Your task to perform on an android device: Go to wifi settings Image 0: 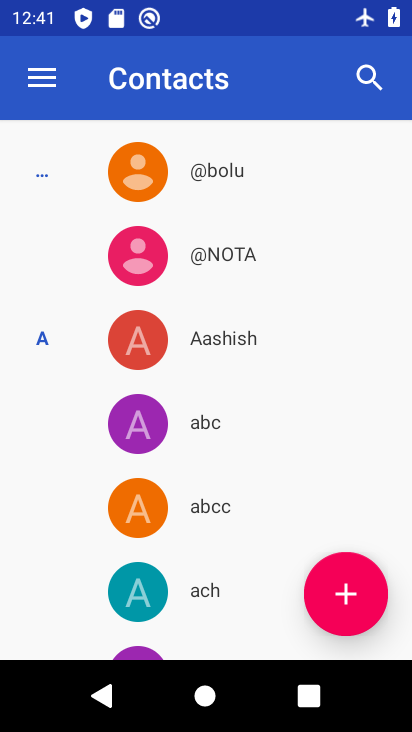
Step 0: press back button
Your task to perform on an android device: Go to wifi settings Image 1: 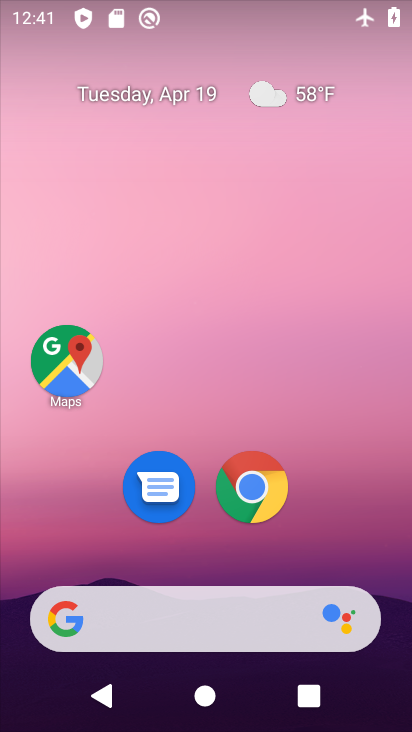
Step 1: drag from (198, 572) to (241, 137)
Your task to perform on an android device: Go to wifi settings Image 2: 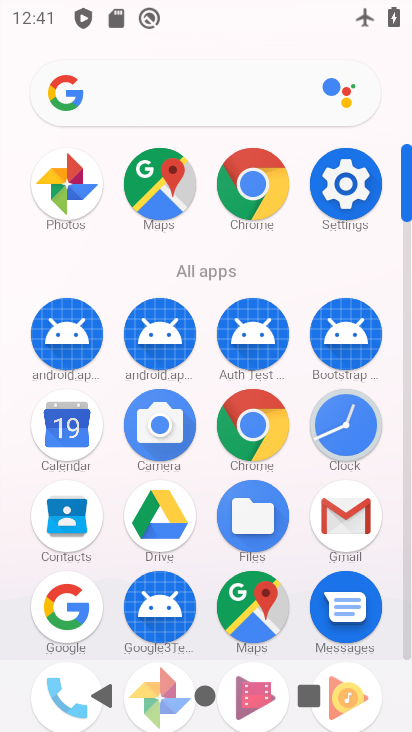
Step 2: click (330, 183)
Your task to perform on an android device: Go to wifi settings Image 3: 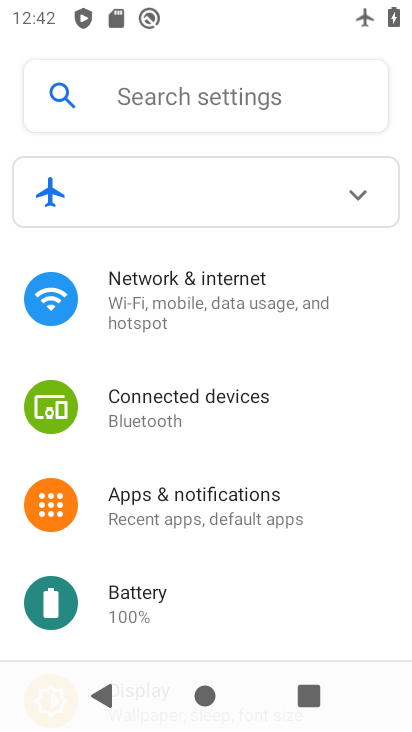
Step 3: click (190, 307)
Your task to perform on an android device: Go to wifi settings Image 4: 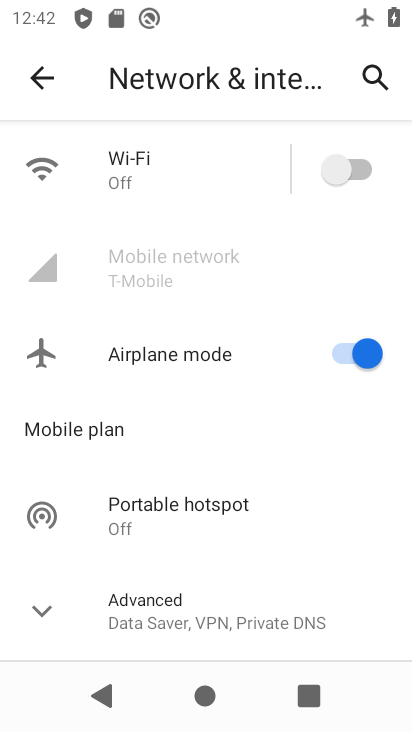
Step 4: click (354, 164)
Your task to perform on an android device: Go to wifi settings Image 5: 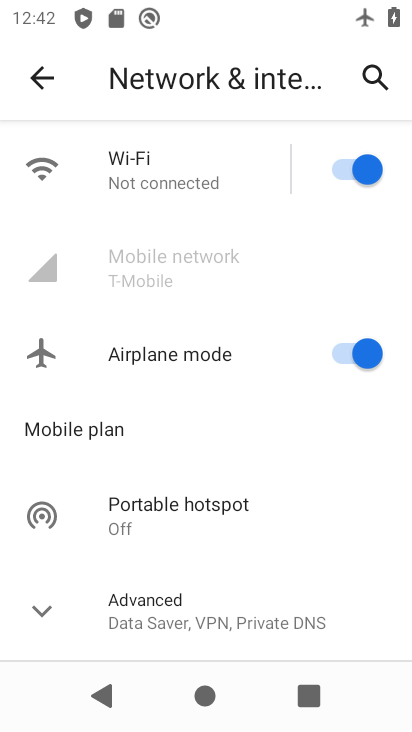
Step 5: click (136, 163)
Your task to perform on an android device: Go to wifi settings Image 6: 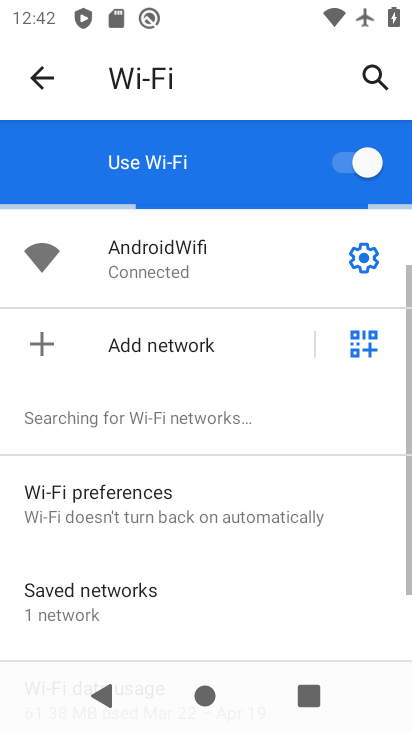
Step 6: click (365, 252)
Your task to perform on an android device: Go to wifi settings Image 7: 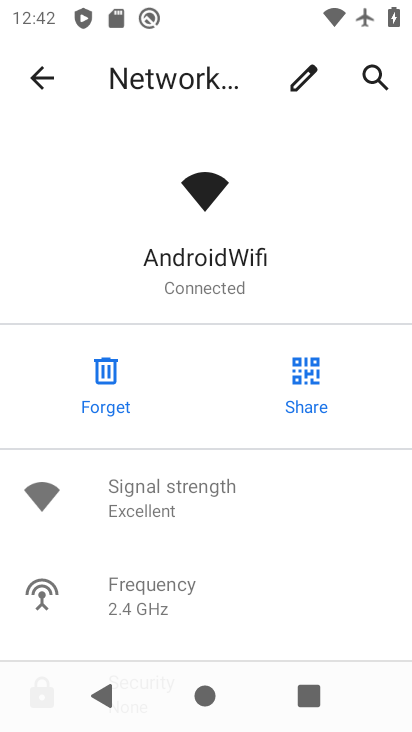
Step 7: drag from (207, 601) to (197, 287)
Your task to perform on an android device: Go to wifi settings Image 8: 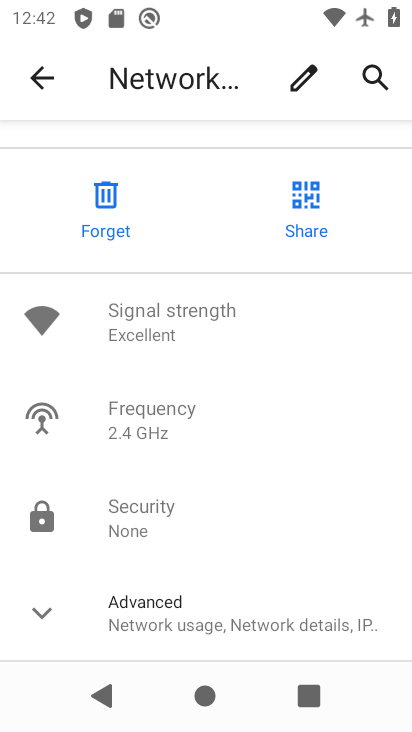
Step 8: click (172, 620)
Your task to perform on an android device: Go to wifi settings Image 9: 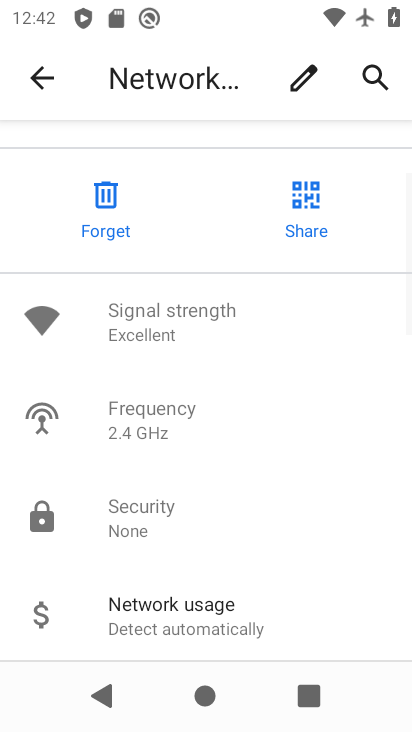
Step 9: task complete